Your task to perform on an android device: Go to settings Image 0: 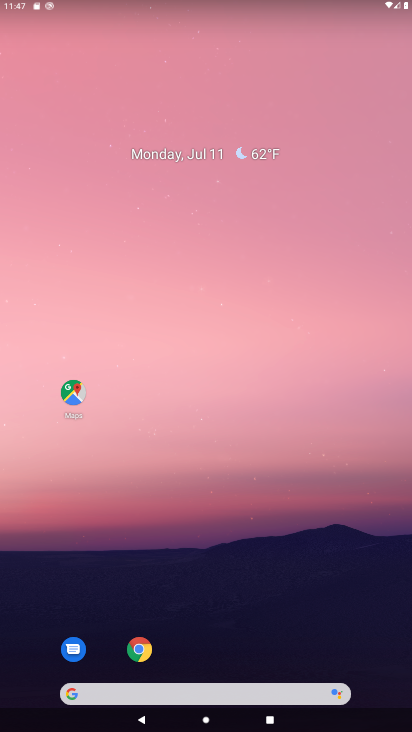
Step 0: drag from (259, 561) to (185, 64)
Your task to perform on an android device: Go to settings Image 1: 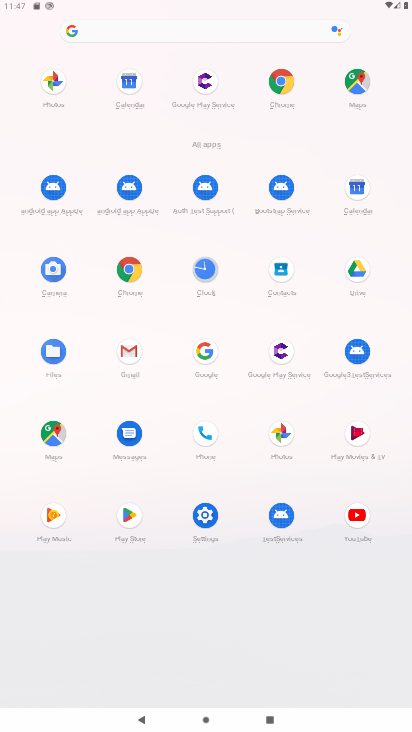
Step 1: click (205, 515)
Your task to perform on an android device: Go to settings Image 2: 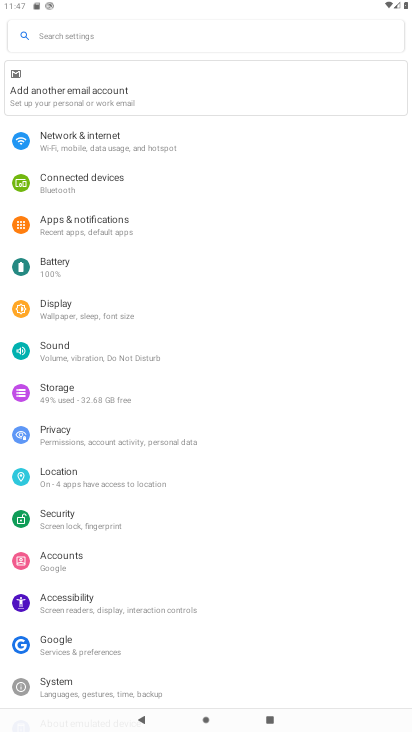
Step 2: task complete